Your task to perform on an android device: turn on data saver in the chrome app Image 0: 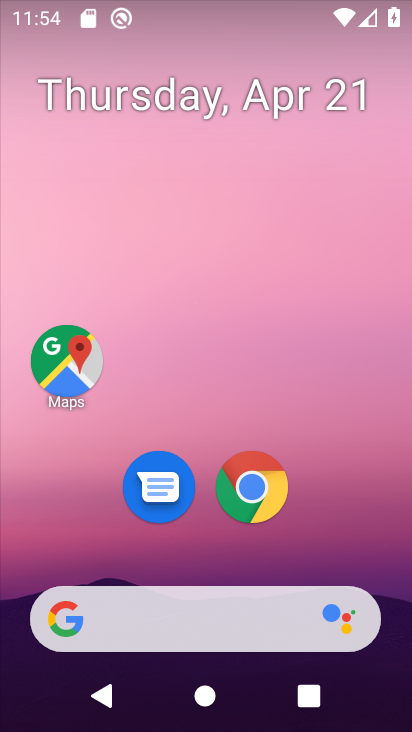
Step 0: click (274, 499)
Your task to perform on an android device: turn on data saver in the chrome app Image 1: 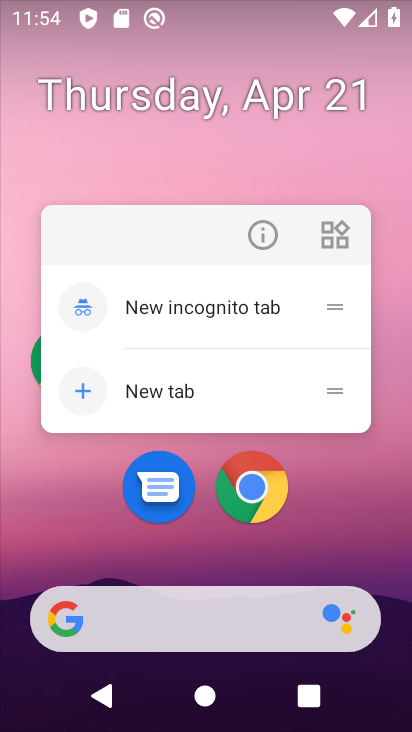
Step 1: click (266, 494)
Your task to perform on an android device: turn on data saver in the chrome app Image 2: 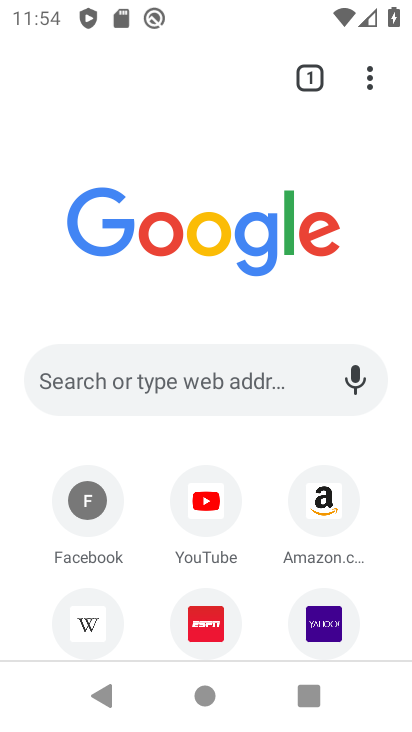
Step 2: click (379, 90)
Your task to perform on an android device: turn on data saver in the chrome app Image 3: 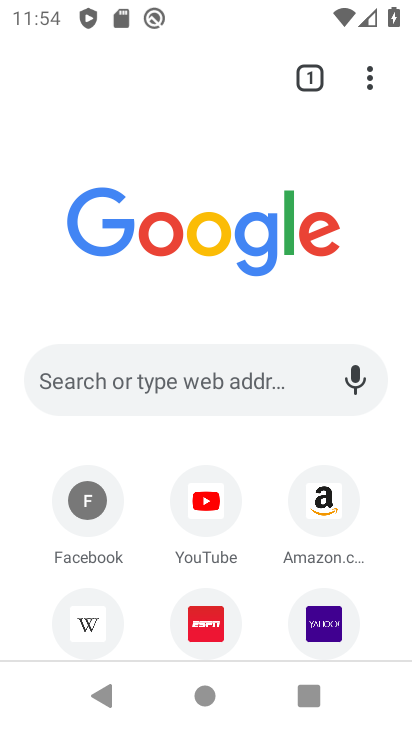
Step 3: click (383, 95)
Your task to perform on an android device: turn on data saver in the chrome app Image 4: 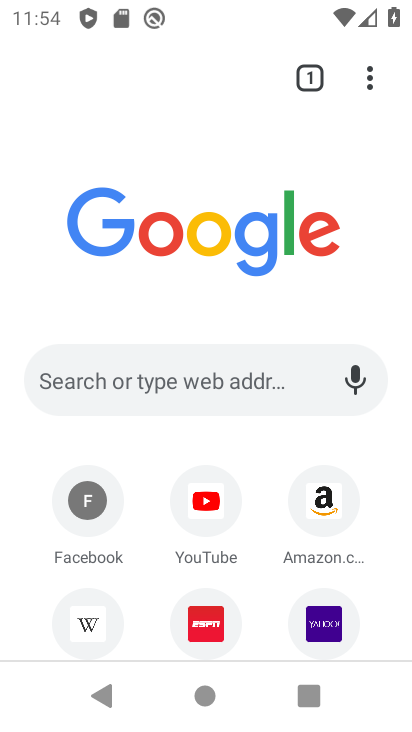
Step 4: drag from (383, 94) to (216, 562)
Your task to perform on an android device: turn on data saver in the chrome app Image 5: 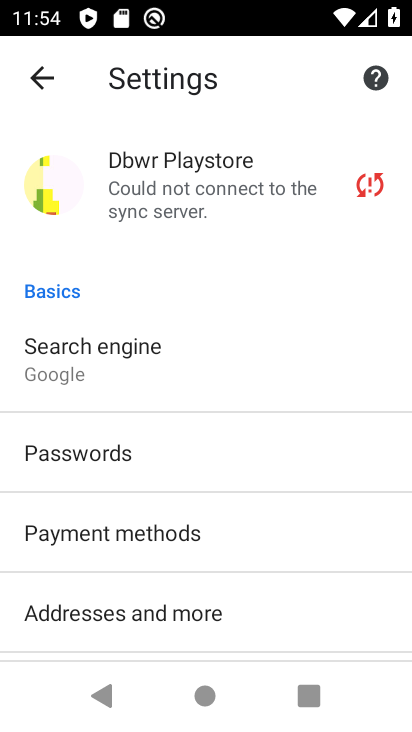
Step 5: drag from (164, 565) to (262, 244)
Your task to perform on an android device: turn on data saver in the chrome app Image 6: 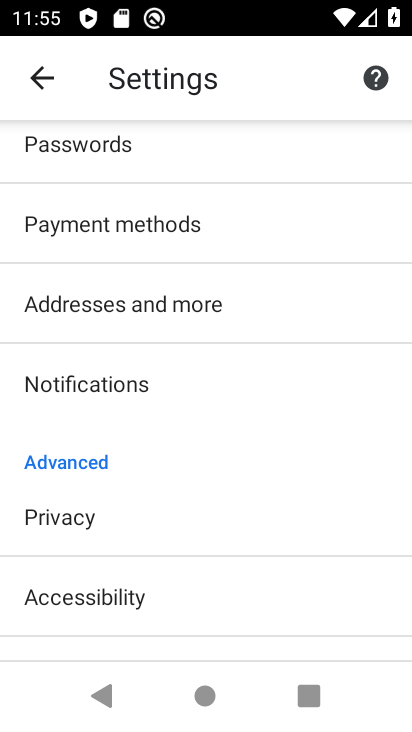
Step 6: drag from (130, 570) to (229, 279)
Your task to perform on an android device: turn on data saver in the chrome app Image 7: 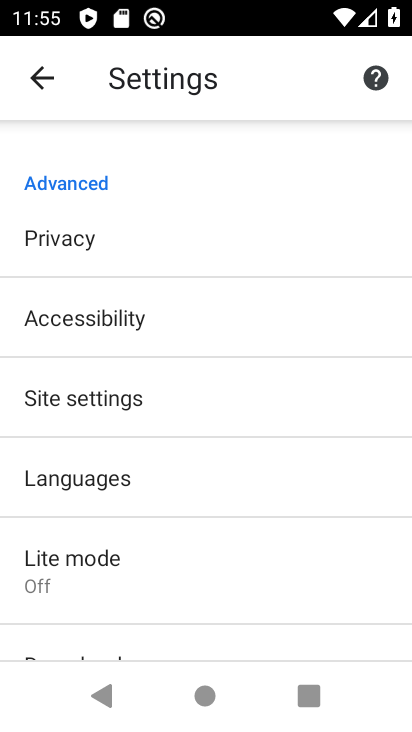
Step 7: click (146, 583)
Your task to perform on an android device: turn on data saver in the chrome app Image 8: 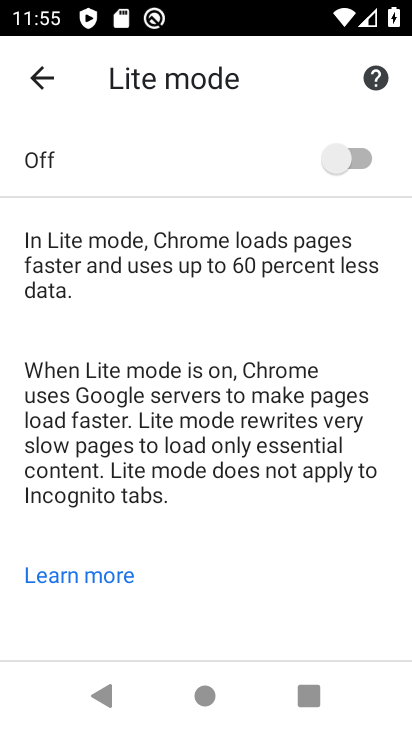
Step 8: click (374, 154)
Your task to perform on an android device: turn on data saver in the chrome app Image 9: 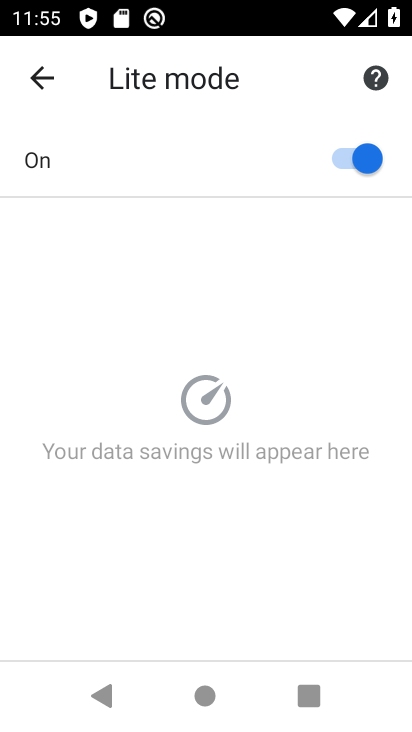
Step 9: task complete